Your task to perform on an android device: Open calendar and show me the fourth week of next month Image 0: 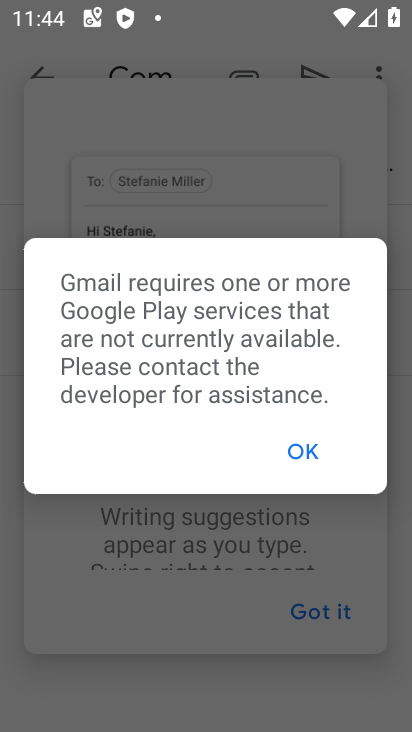
Step 0: press home button
Your task to perform on an android device: Open calendar and show me the fourth week of next month Image 1: 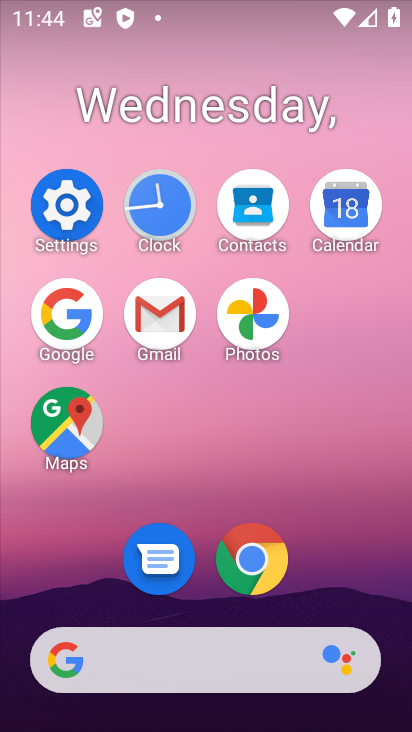
Step 1: click (341, 210)
Your task to perform on an android device: Open calendar and show me the fourth week of next month Image 2: 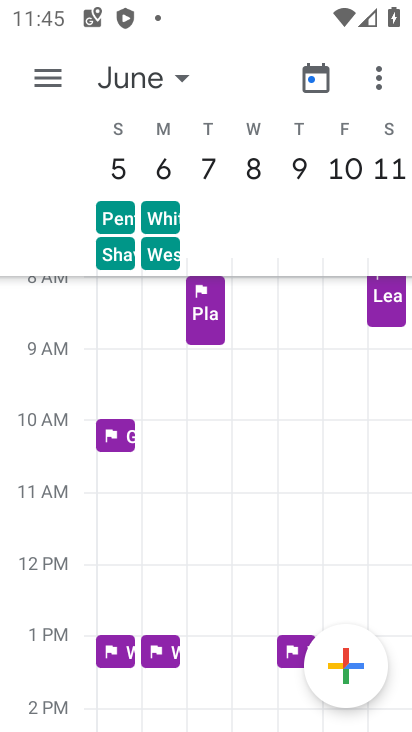
Step 2: task complete